Your task to perform on an android device: Is it going to rain today? Image 0: 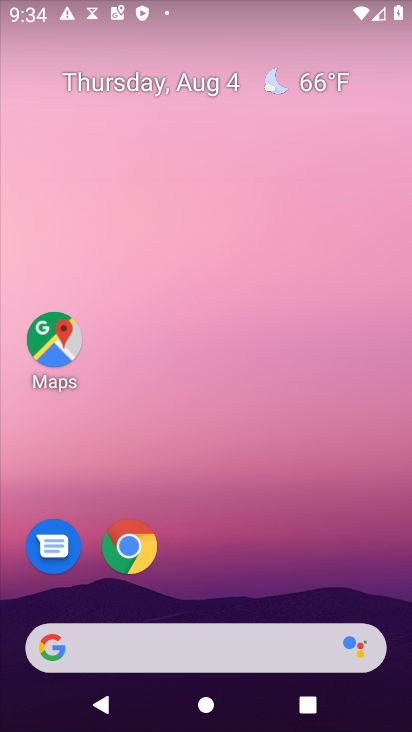
Step 0: press home button
Your task to perform on an android device: Is it going to rain today? Image 1: 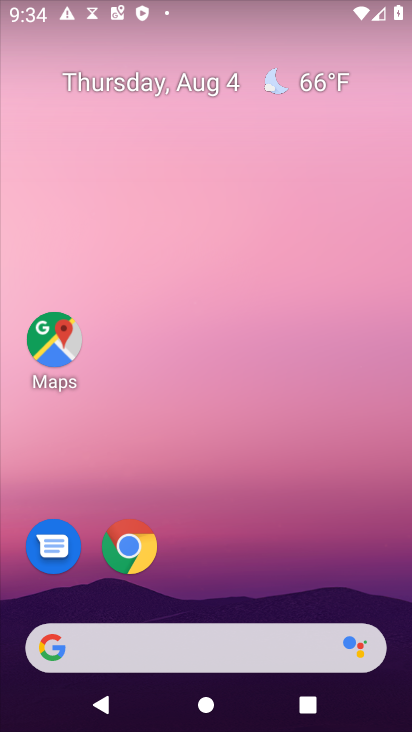
Step 1: click (50, 658)
Your task to perform on an android device: Is it going to rain today? Image 2: 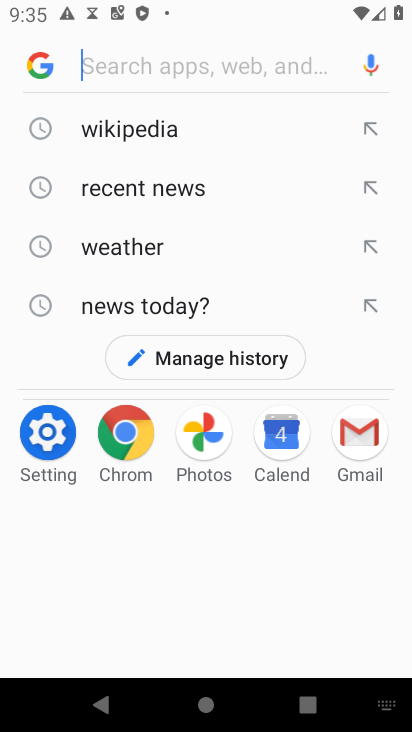
Step 2: type "rain today?"
Your task to perform on an android device: Is it going to rain today? Image 3: 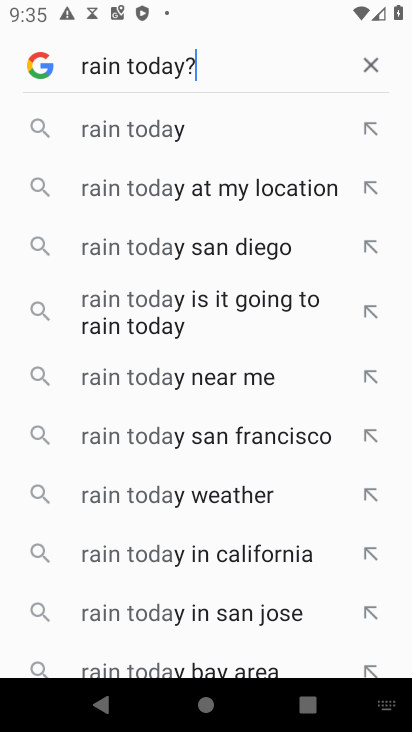
Step 3: press enter
Your task to perform on an android device: Is it going to rain today? Image 4: 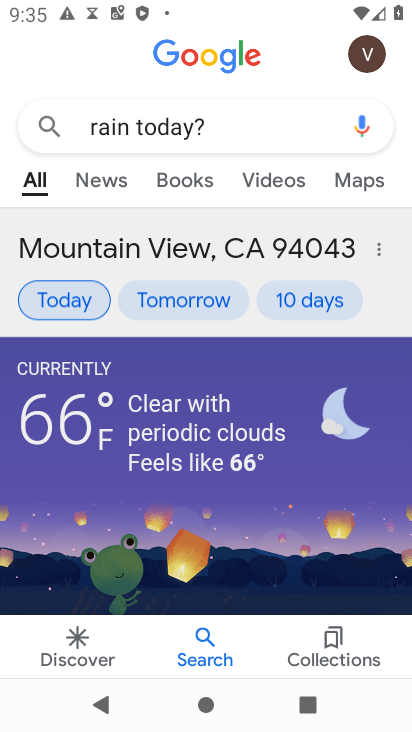
Step 4: task complete